Your task to perform on an android device: uninstall "The Home Depot" Image 0: 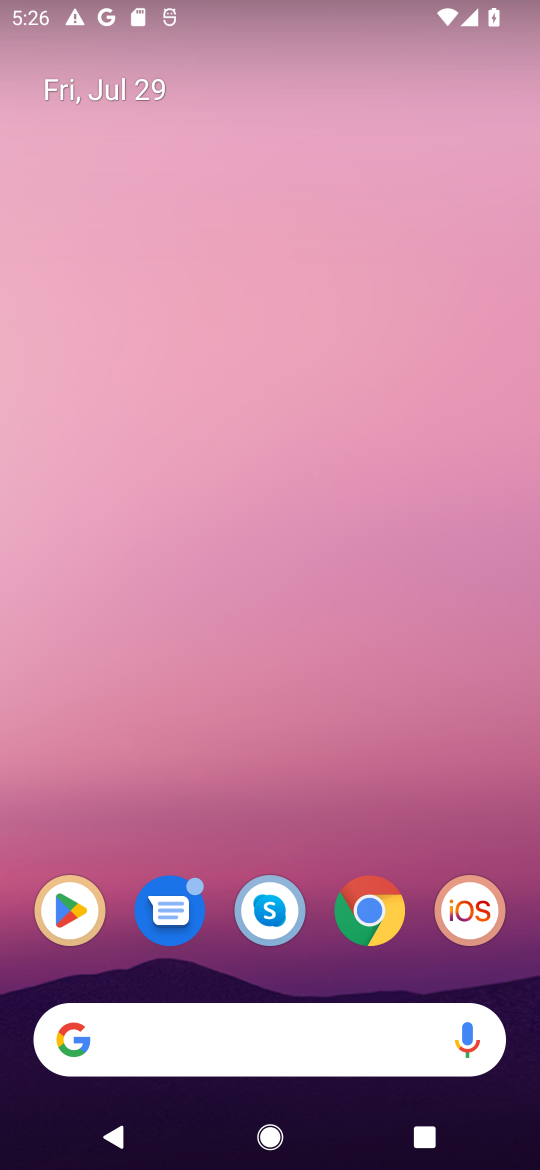
Step 0: drag from (224, 1018) to (223, 176)
Your task to perform on an android device: uninstall "The Home Depot" Image 1: 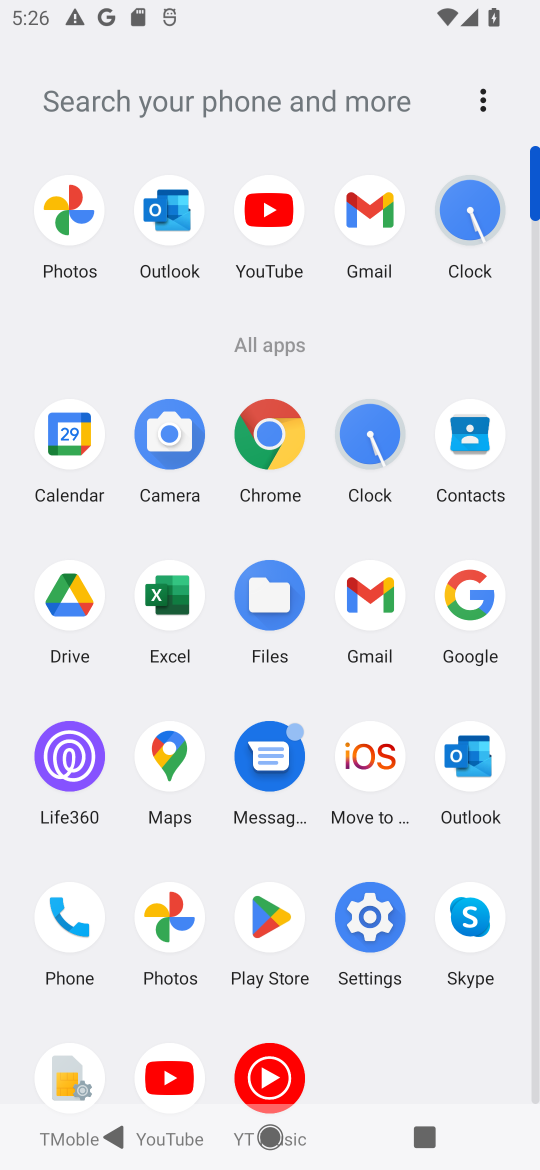
Step 1: click (279, 914)
Your task to perform on an android device: uninstall "The Home Depot" Image 2: 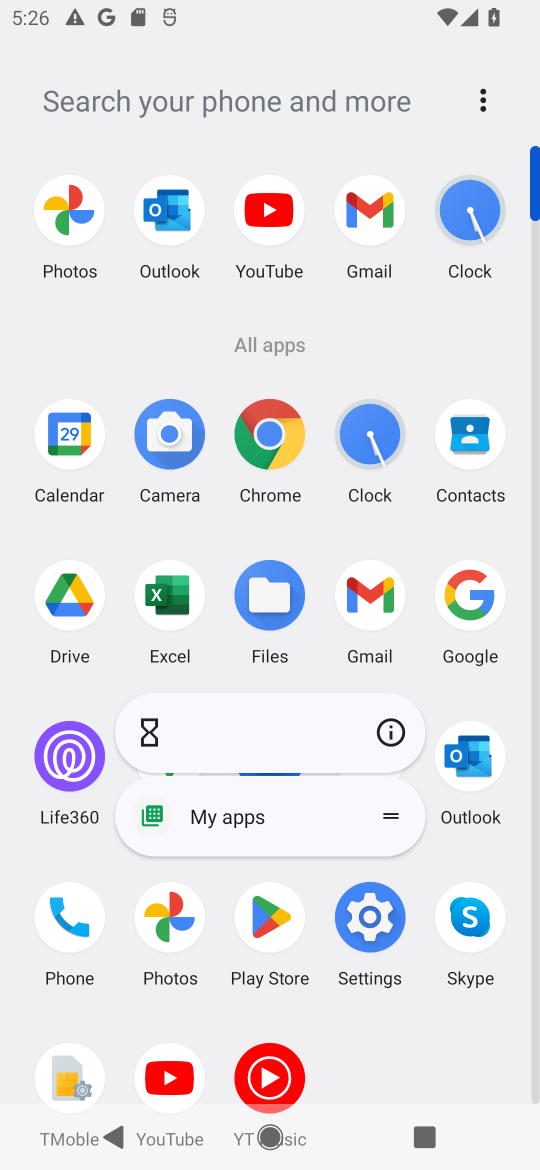
Step 2: click (261, 916)
Your task to perform on an android device: uninstall "The Home Depot" Image 3: 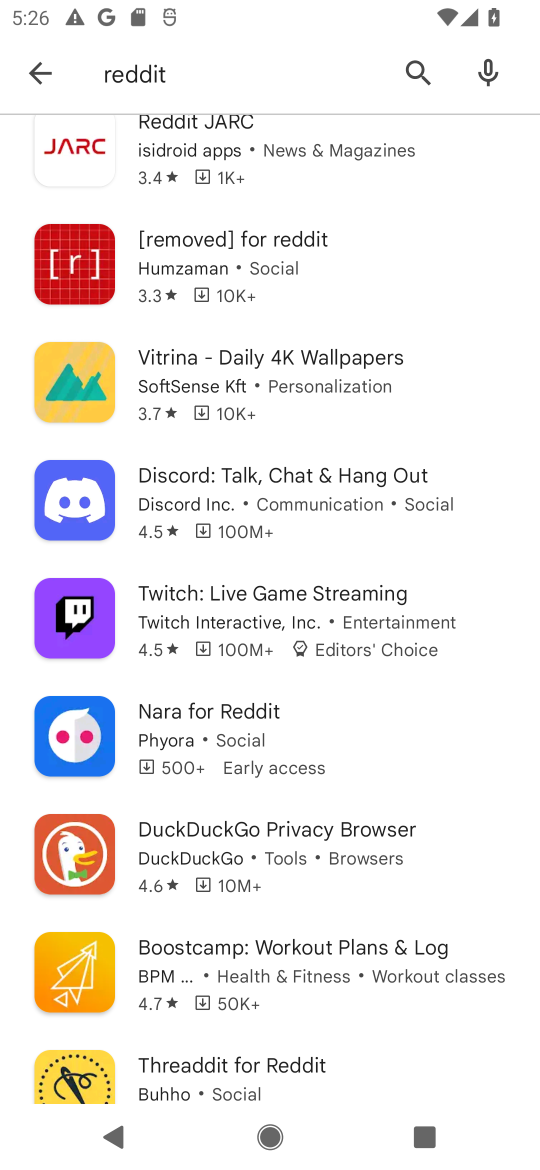
Step 3: click (423, 65)
Your task to perform on an android device: uninstall "The Home Depot" Image 4: 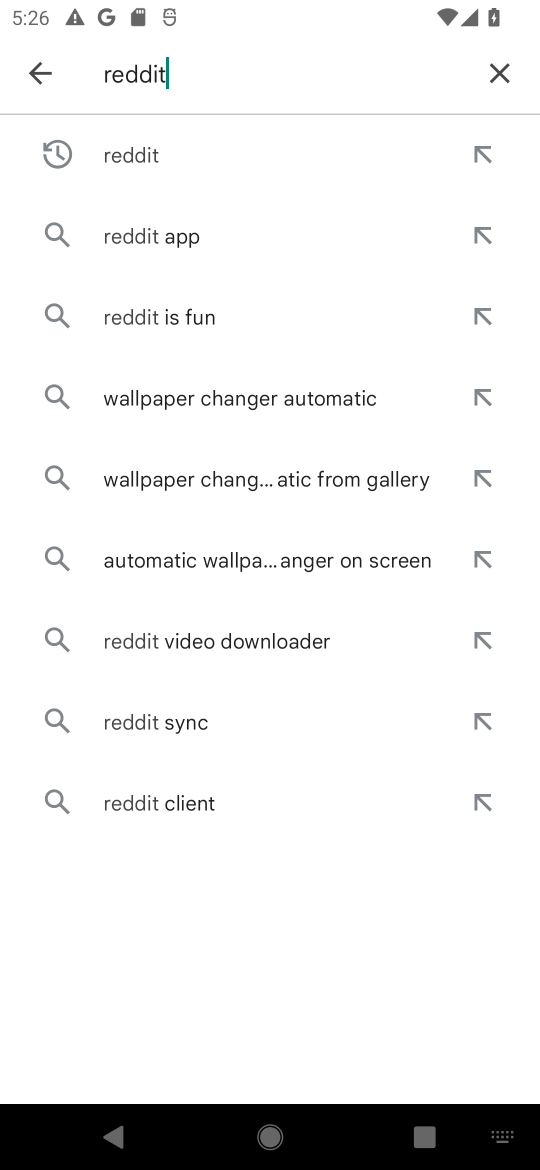
Step 4: click (506, 76)
Your task to perform on an android device: uninstall "The Home Depot" Image 5: 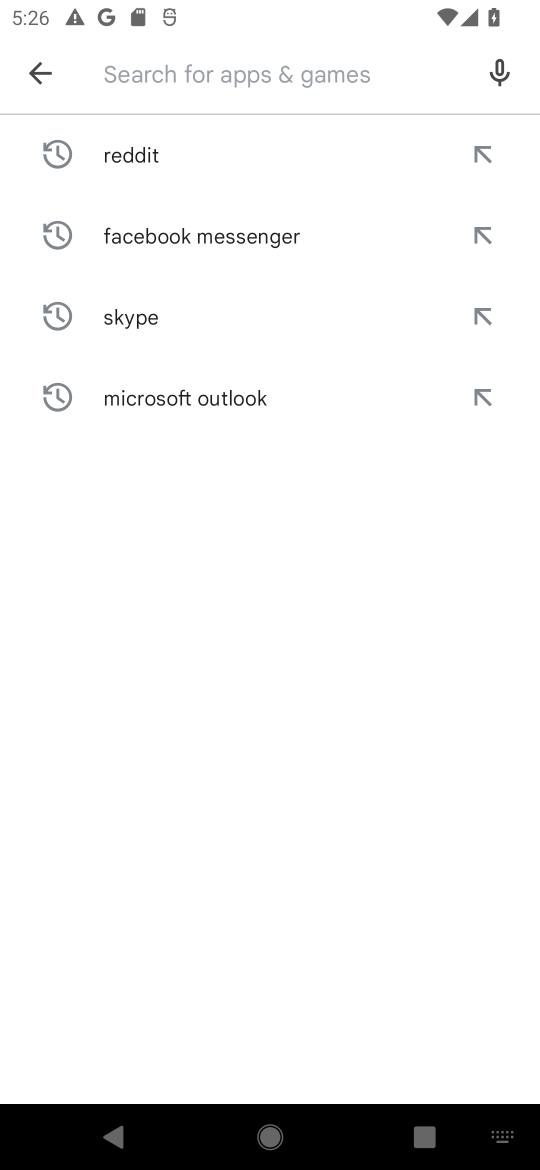
Step 5: type "the home depot"
Your task to perform on an android device: uninstall "The Home Depot" Image 6: 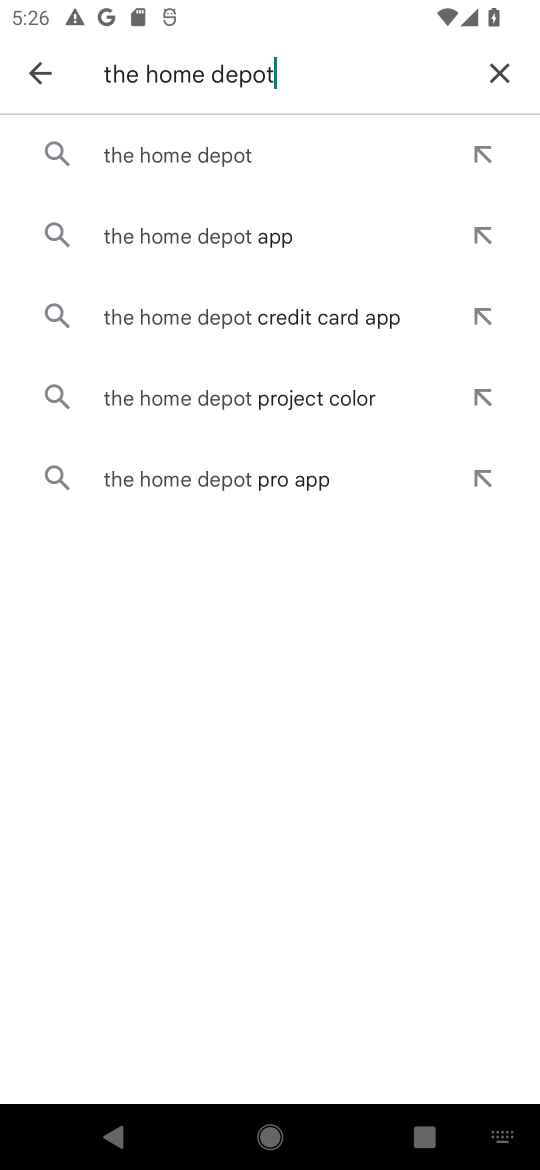
Step 6: click (206, 144)
Your task to perform on an android device: uninstall "The Home Depot" Image 7: 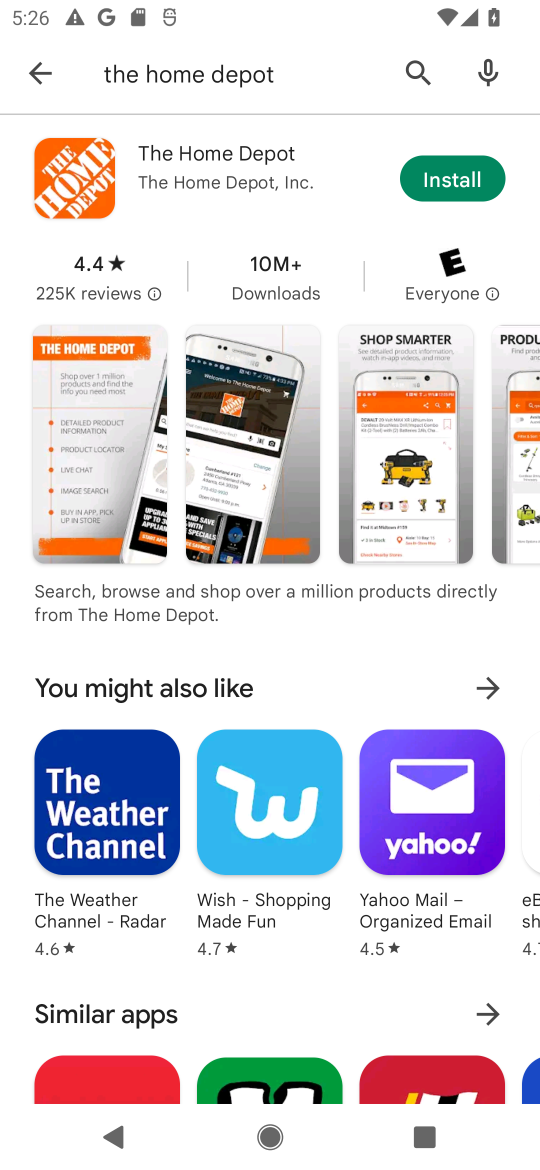
Step 7: task complete